Your task to perform on an android device: Open Reddit.com Image 0: 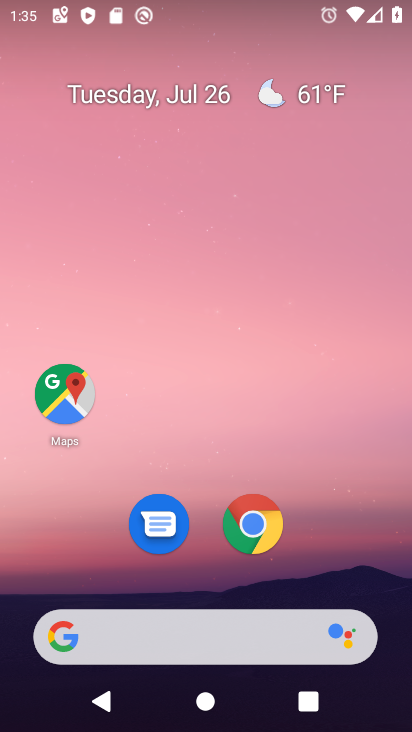
Step 0: press home button
Your task to perform on an android device: Open Reddit.com Image 1: 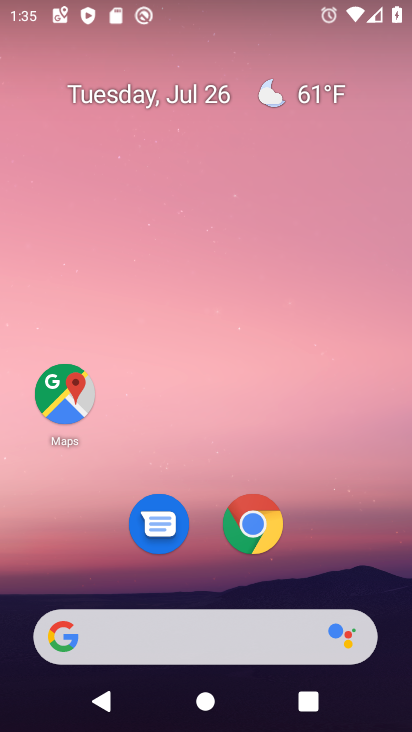
Step 1: click (260, 524)
Your task to perform on an android device: Open Reddit.com Image 2: 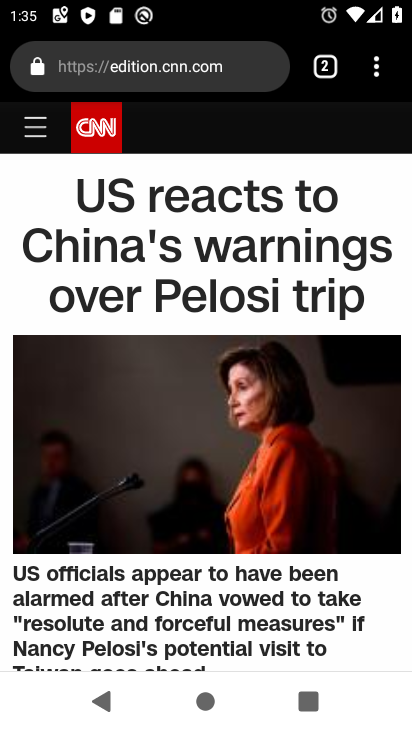
Step 2: drag from (373, 67) to (243, 128)
Your task to perform on an android device: Open Reddit.com Image 3: 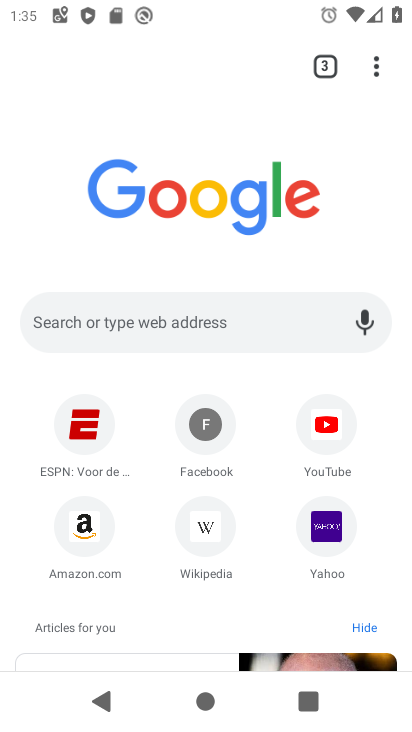
Step 3: click (138, 325)
Your task to perform on an android device: Open Reddit.com Image 4: 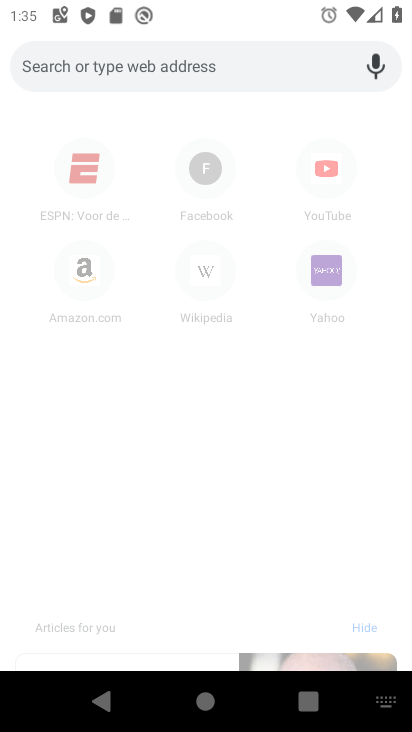
Step 4: type "reddit.com"
Your task to perform on an android device: Open Reddit.com Image 5: 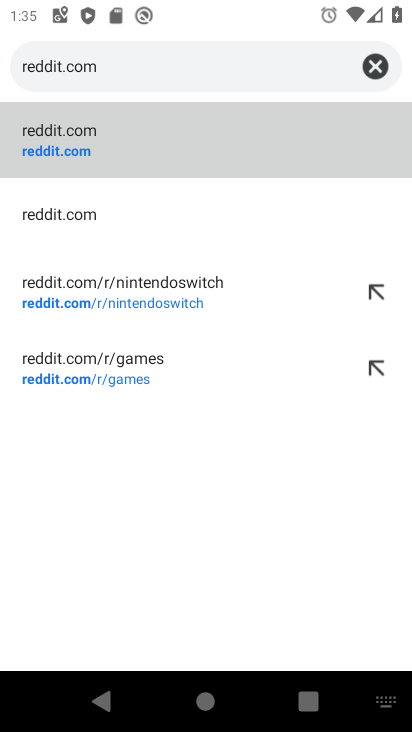
Step 5: click (87, 151)
Your task to perform on an android device: Open Reddit.com Image 6: 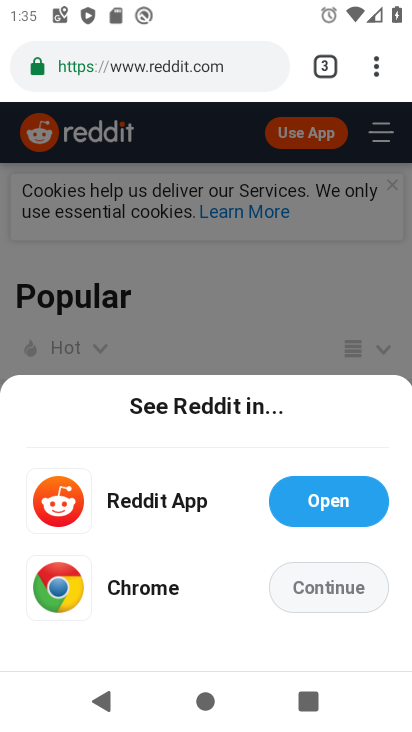
Step 6: task complete